Your task to perform on an android device: Open the downloads Image 0: 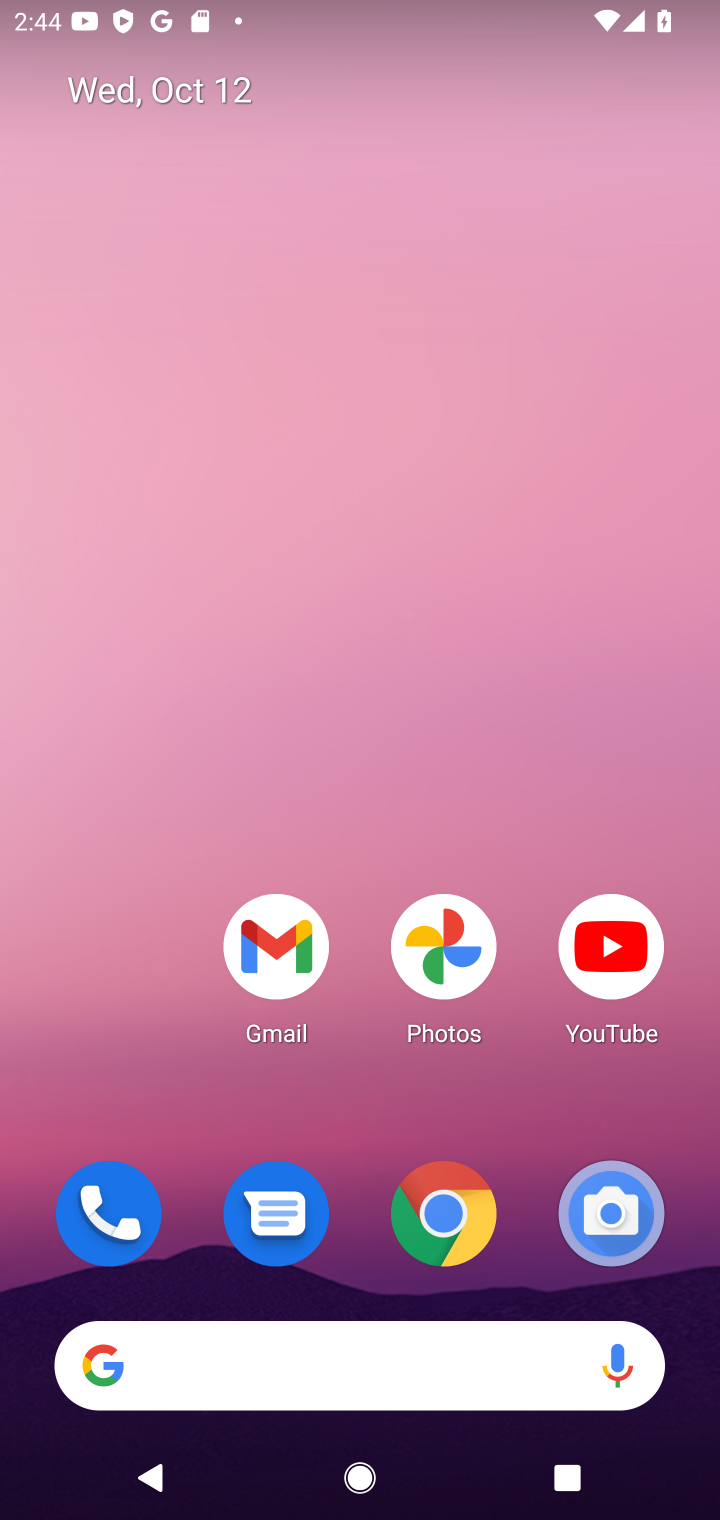
Step 0: drag from (399, 863) to (488, 12)
Your task to perform on an android device: Open the downloads Image 1: 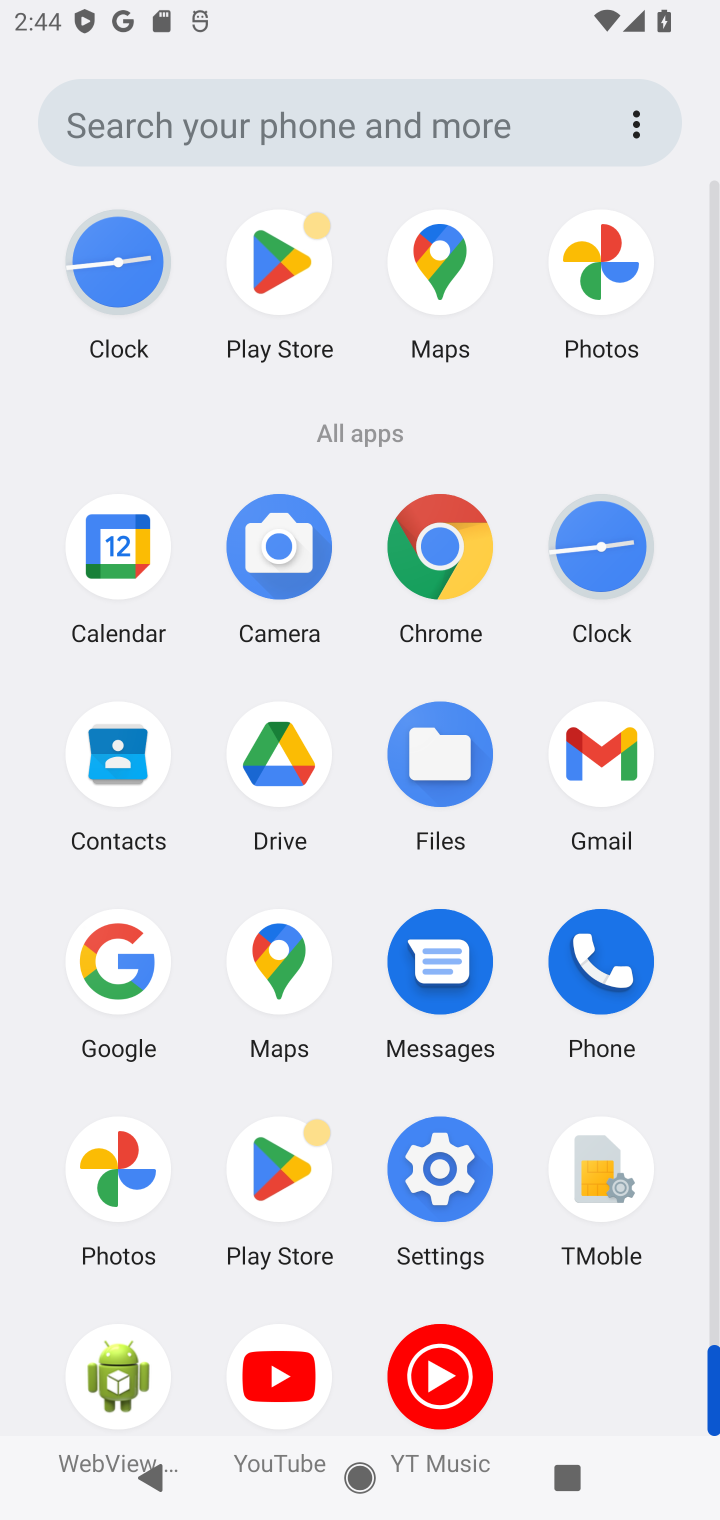
Step 1: task complete